Your task to perform on an android device: see tabs open on other devices in the chrome app Image 0: 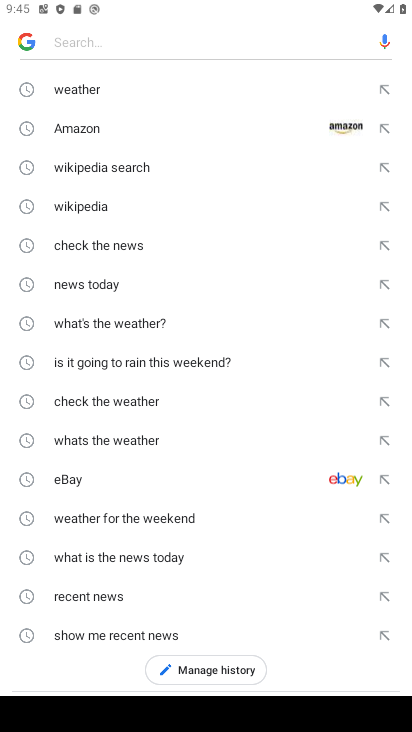
Step 0: press back button
Your task to perform on an android device: see tabs open on other devices in the chrome app Image 1: 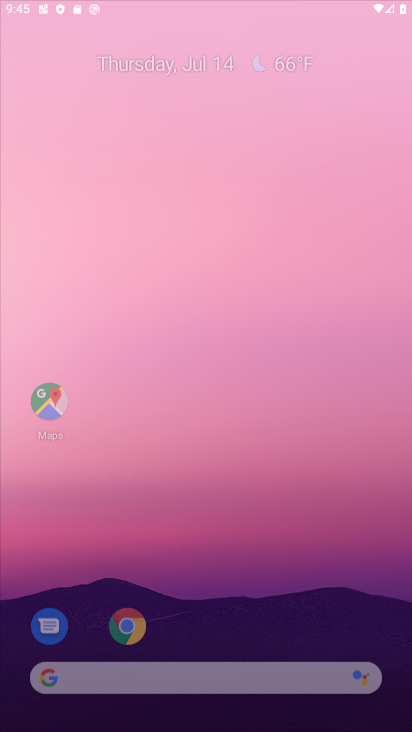
Step 1: press home button
Your task to perform on an android device: see tabs open on other devices in the chrome app Image 2: 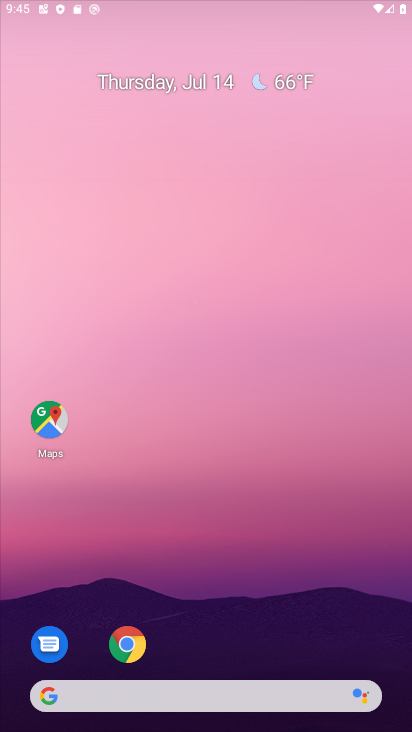
Step 2: press home button
Your task to perform on an android device: see tabs open on other devices in the chrome app Image 3: 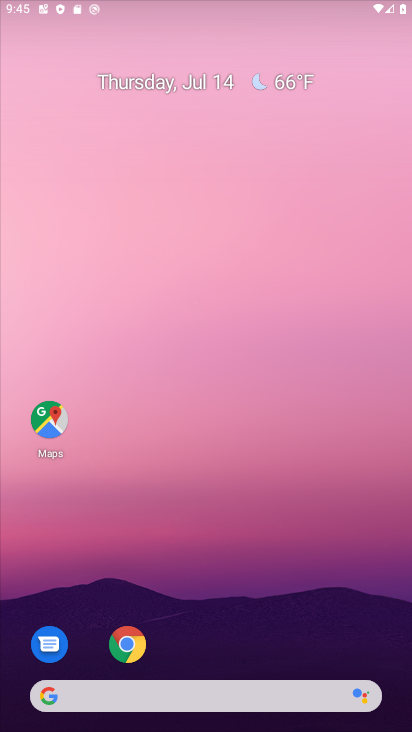
Step 3: click (210, 55)
Your task to perform on an android device: see tabs open on other devices in the chrome app Image 4: 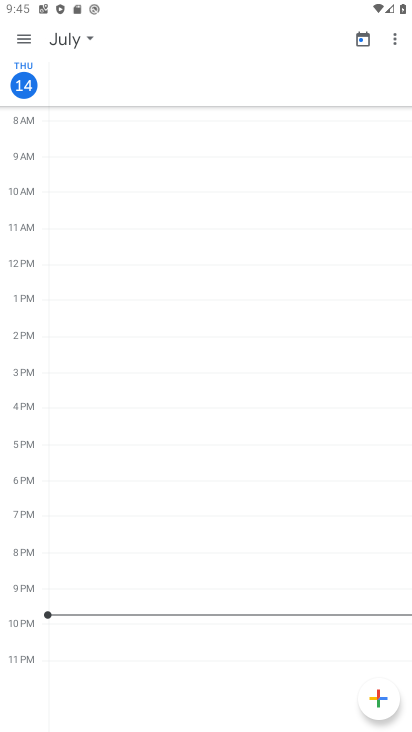
Step 4: press back button
Your task to perform on an android device: see tabs open on other devices in the chrome app Image 5: 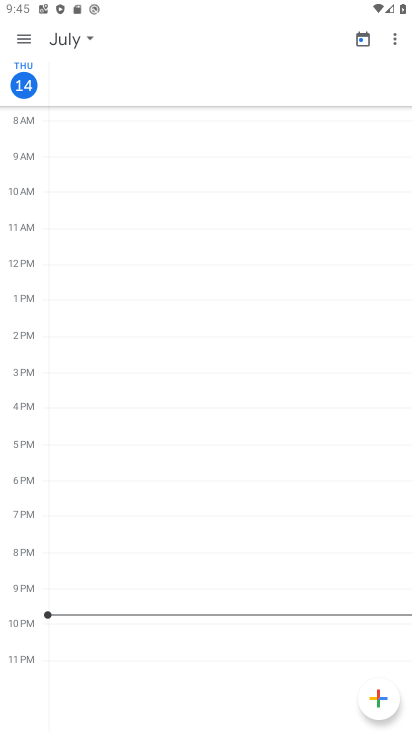
Step 5: press back button
Your task to perform on an android device: see tabs open on other devices in the chrome app Image 6: 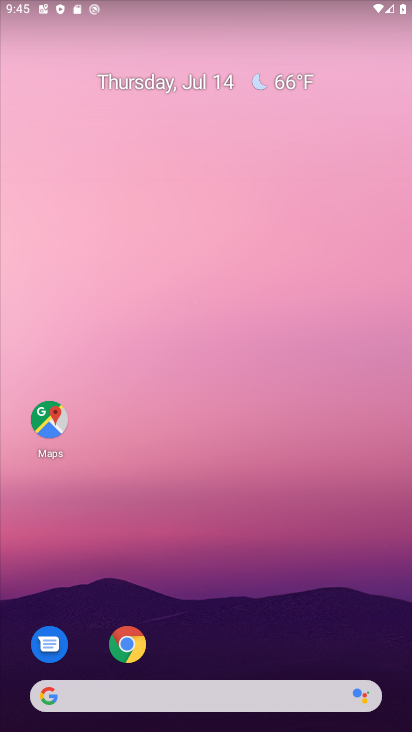
Step 6: click (184, 86)
Your task to perform on an android device: see tabs open on other devices in the chrome app Image 7: 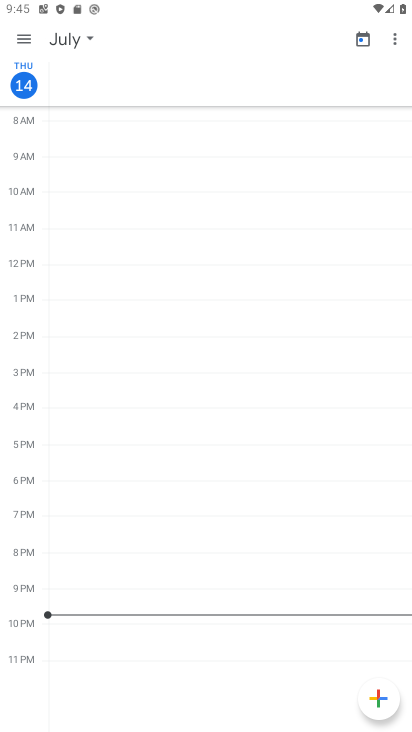
Step 7: press home button
Your task to perform on an android device: see tabs open on other devices in the chrome app Image 8: 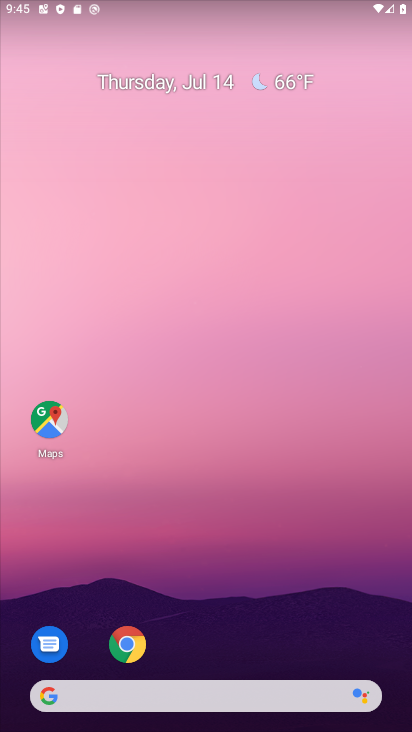
Step 8: drag from (234, 681) to (150, 360)
Your task to perform on an android device: see tabs open on other devices in the chrome app Image 9: 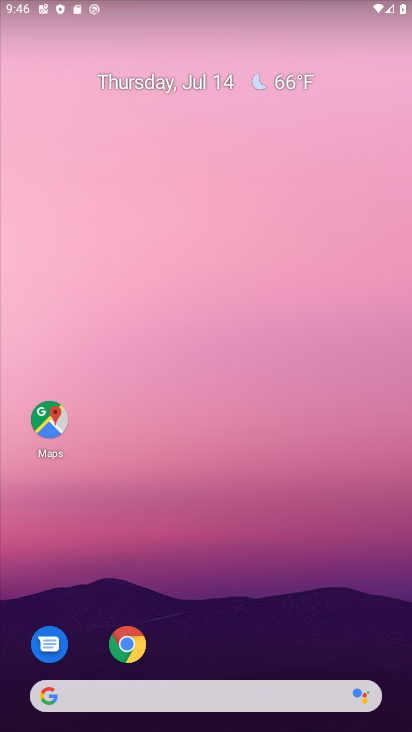
Step 9: drag from (274, 633) to (249, 30)
Your task to perform on an android device: see tabs open on other devices in the chrome app Image 10: 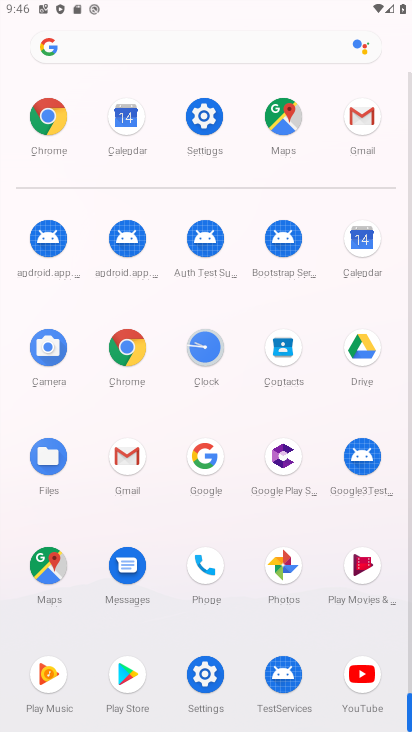
Step 10: drag from (263, 2) to (199, 94)
Your task to perform on an android device: see tabs open on other devices in the chrome app Image 11: 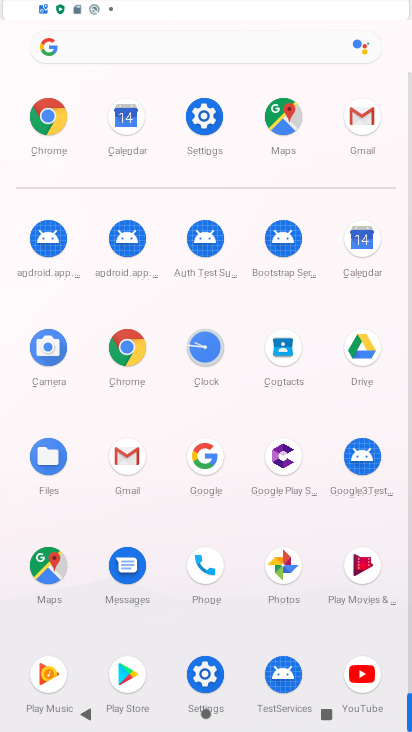
Step 11: drag from (188, 464) to (212, 85)
Your task to perform on an android device: see tabs open on other devices in the chrome app Image 12: 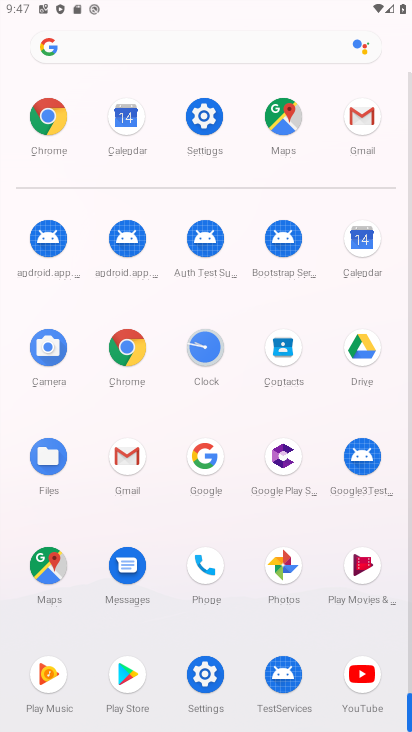
Step 12: drag from (233, 384) to (212, 7)
Your task to perform on an android device: see tabs open on other devices in the chrome app Image 13: 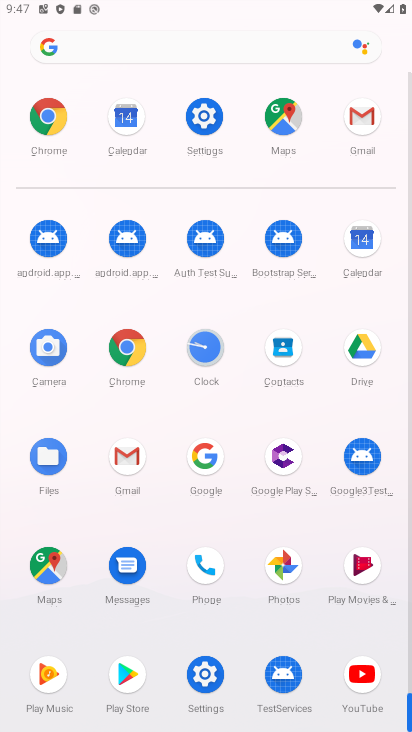
Step 13: click (134, 346)
Your task to perform on an android device: see tabs open on other devices in the chrome app Image 14: 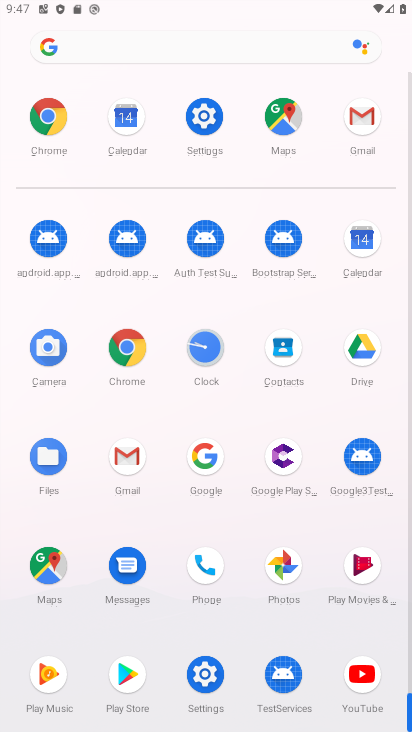
Step 14: click (129, 352)
Your task to perform on an android device: see tabs open on other devices in the chrome app Image 15: 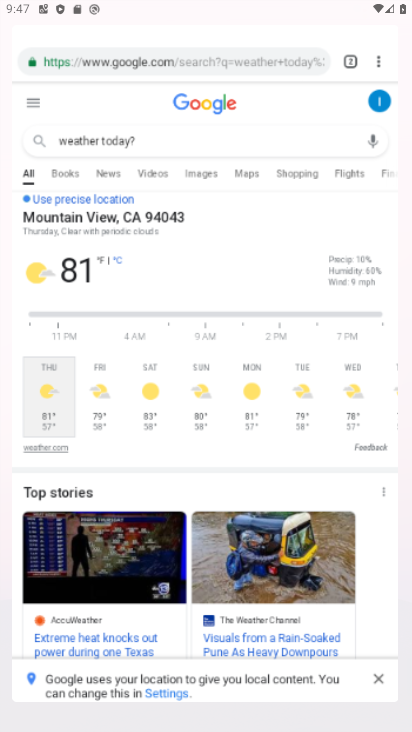
Step 15: click (128, 353)
Your task to perform on an android device: see tabs open on other devices in the chrome app Image 16: 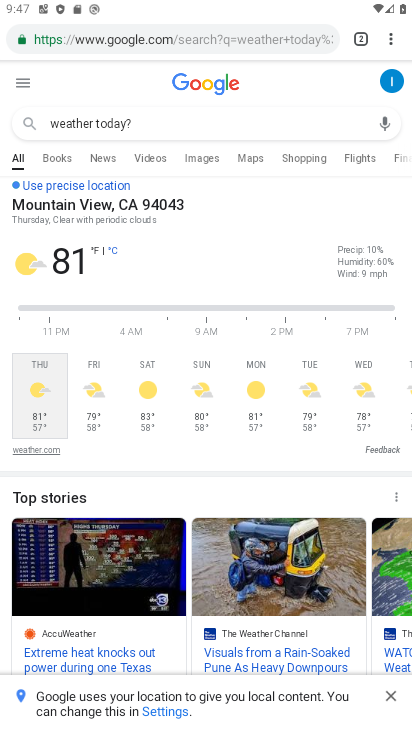
Step 16: click (388, 38)
Your task to perform on an android device: see tabs open on other devices in the chrome app Image 17: 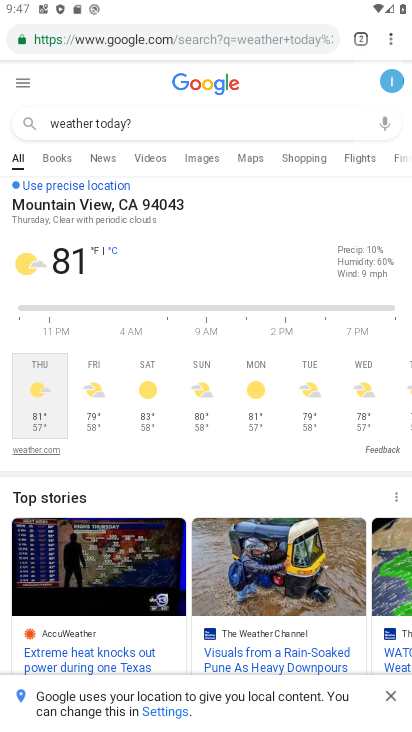
Step 17: drag from (388, 38) to (246, 432)
Your task to perform on an android device: see tabs open on other devices in the chrome app Image 18: 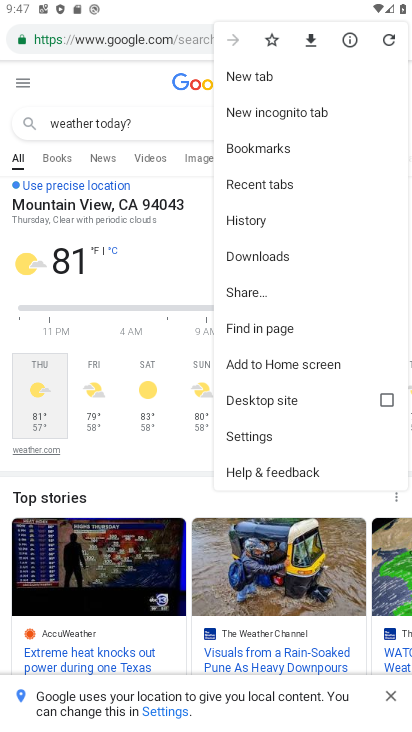
Step 18: click (250, 437)
Your task to perform on an android device: see tabs open on other devices in the chrome app Image 19: 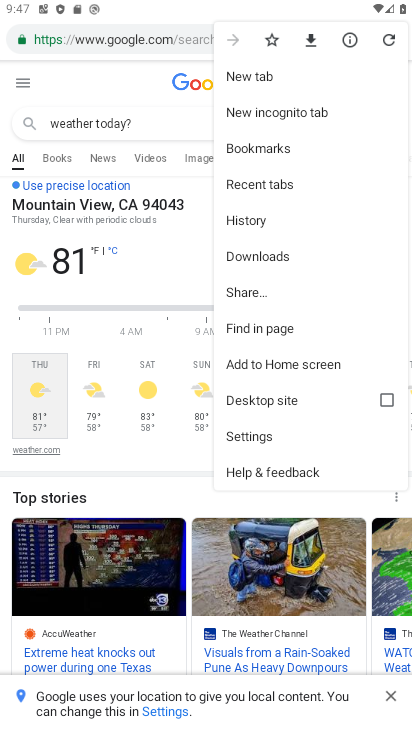
Step 19: click (254, 431)
Your task to perform on an android device: see tabs open on other devices in the chrome app Image 20: 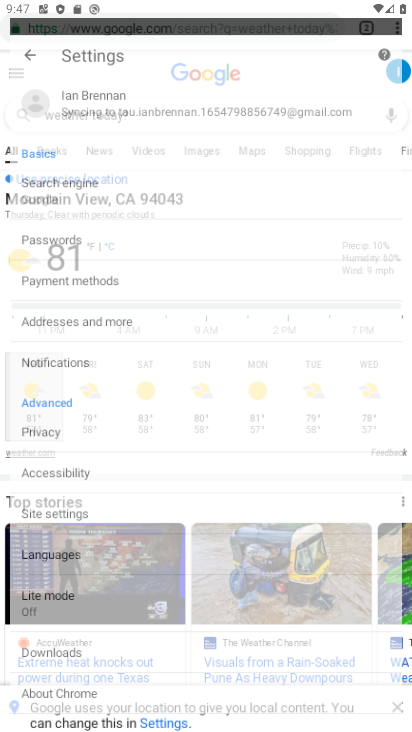
Step 20: click (249, 431)
Your task to perform on an android device: see tabs open on other devices in the chrome app Image 21: 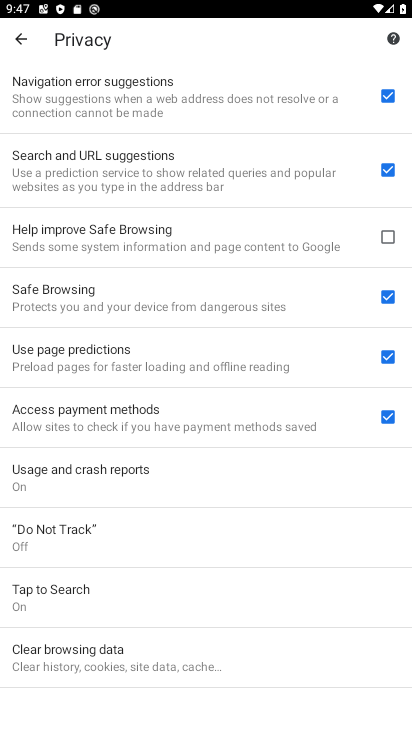
Step 21: click (17, 35)
Your task to perform on an android device: see tabs open on other devices in the chrome app Image 22: 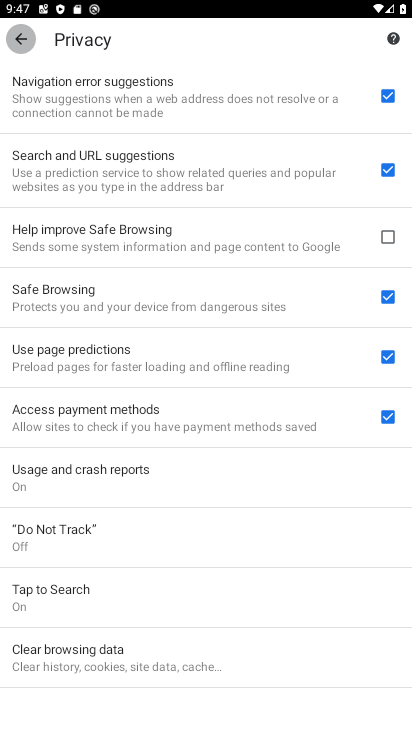
Step 22: click (16, 35)
Your task to perform on an android device: see tabs open on other devices in the chrome app Image 23: 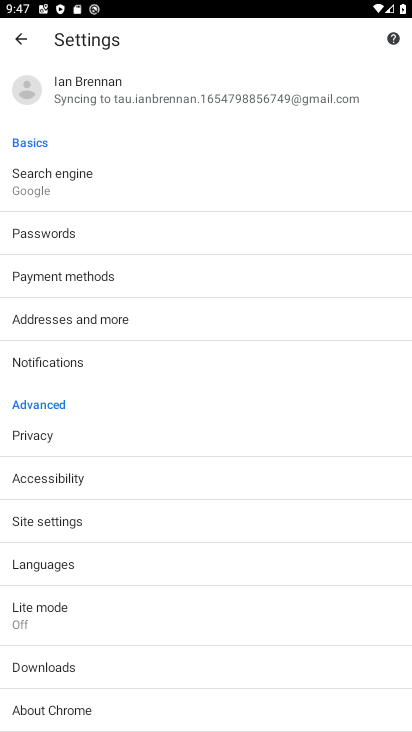
Step 23: click (34, 514)
Your task to perform on an android device: see tabs open on other devices in the chrome app Image 24: 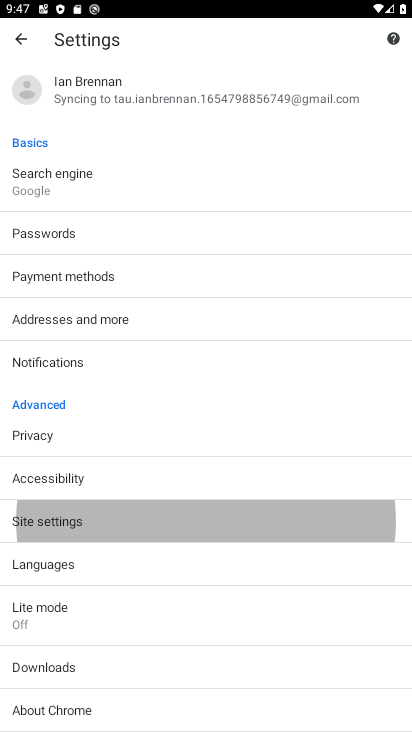
Step 24: click (34, 514)
Your task to perform on an android device: see tabs open on other devices in the chrome app Image 25: 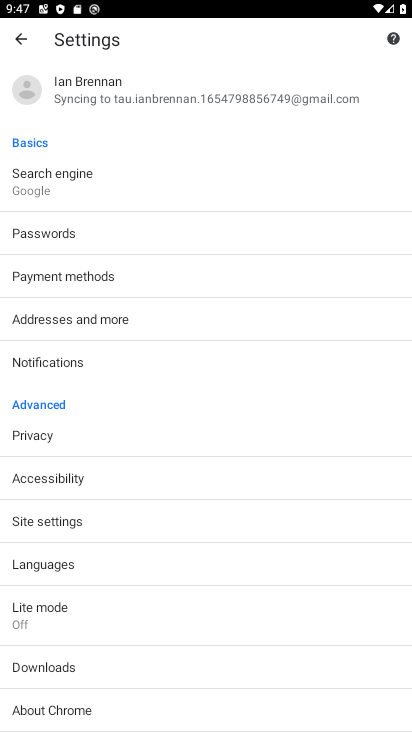
Step 25: click (34, 514)
Your task to perform on an android device: see tabs open on other devices in the chrome app Image 26: 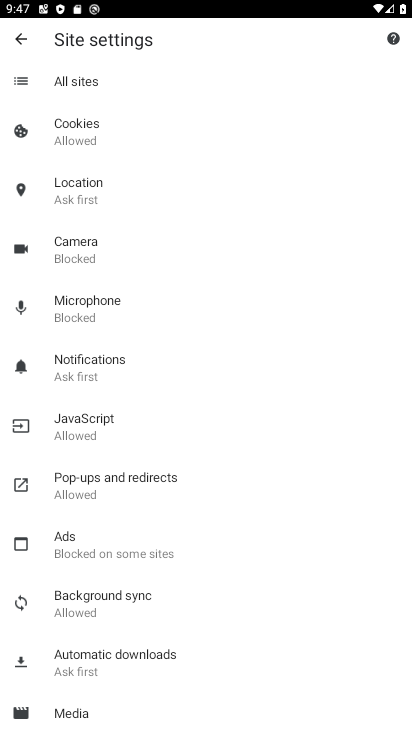
Step 26: click (17, 35)
Your task to perform on an android device: see tabs open on other devices in the chrome app Image 27: 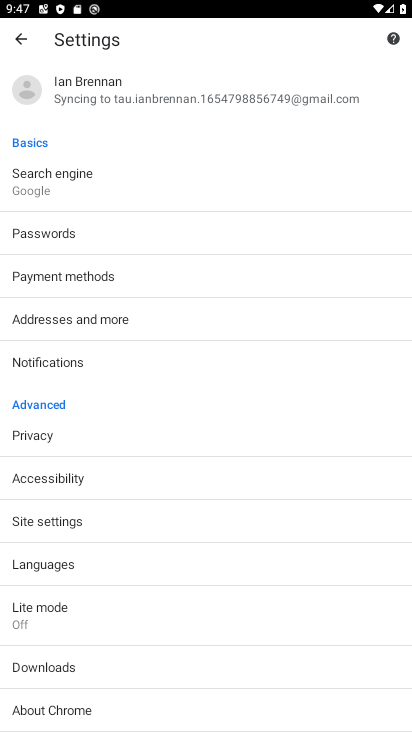
Step 27: task complete